Your task to perform on an android device: add a contact in the contacts app Image 0: 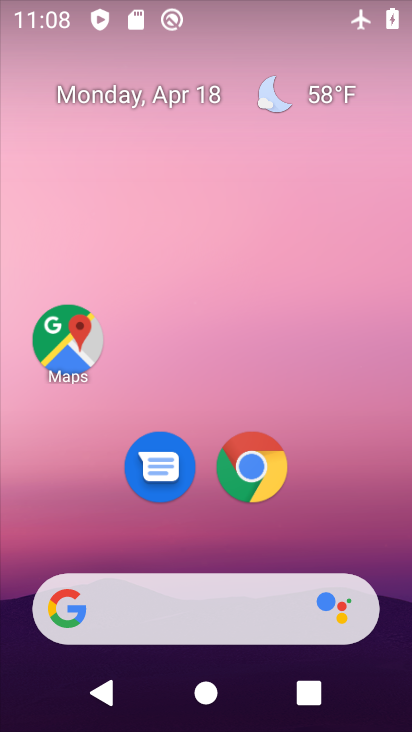
Step 0: drag from (206, 530) to (191, 166)
Your task to perform on an android device: add a contact in the contacts app Image 1: 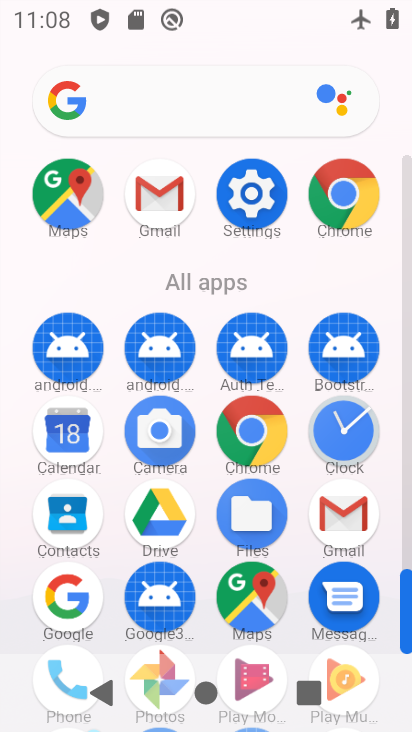
Step 1: click (69, 512)
Your task to perform on an android device: add a contact in the contacts app Image 2: 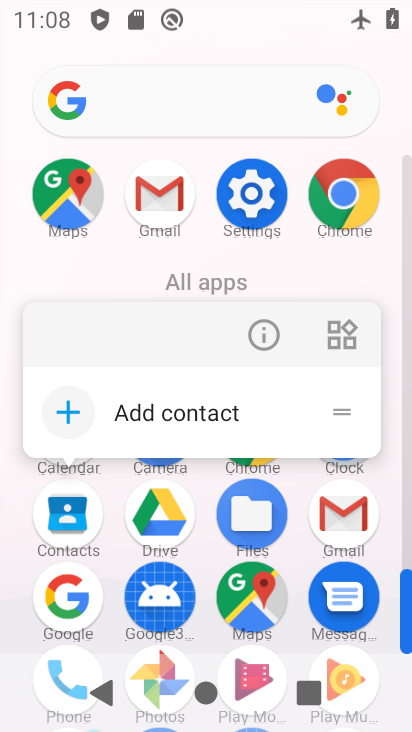
Step 2: click (75, 520)
Your task to perform on an android device: add a contact in the contacts app Image 3: 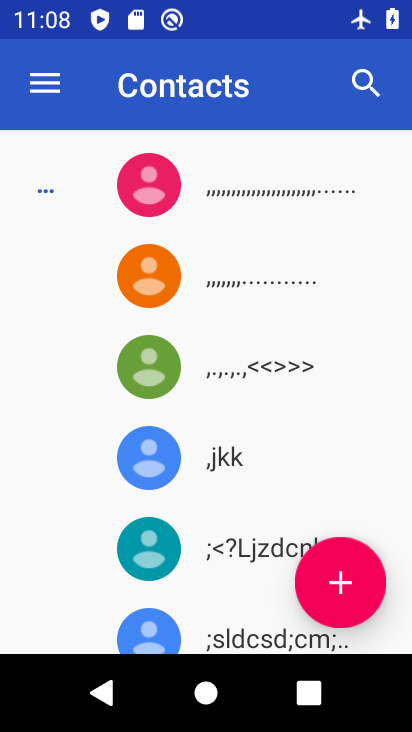
Step 3: click (341, 588)
Your task to perform on an android device: add a contact in the contacts app Image 4: 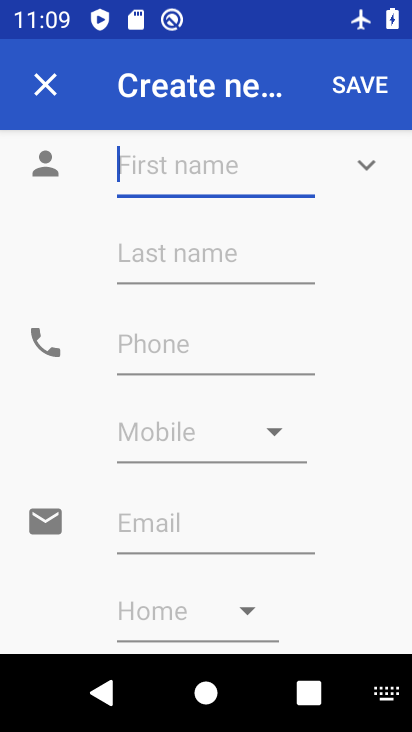
Step 4: type "ghghg"
Your task to perform on an android device: add a contact in the contacts app Image 5: 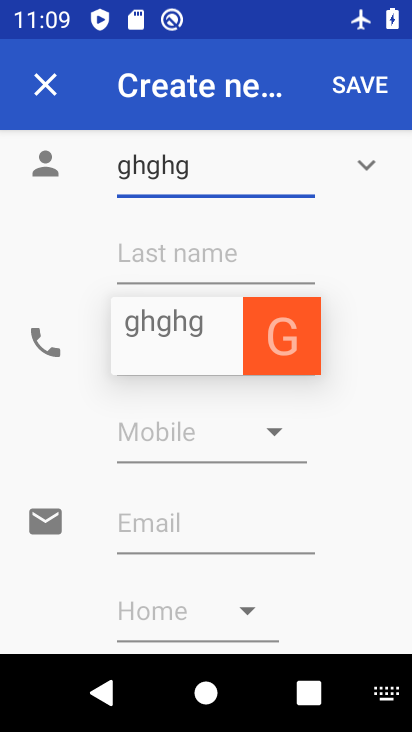
Step 5: click (173, 257)
Your task to perform on an android device: add a contact in the contacts app Image 6: 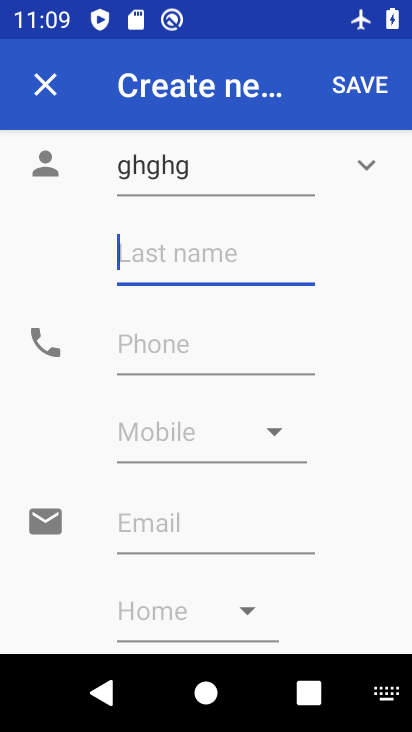
Step 6: type "ghghgh"
Your task to perform on an android device: add a contact in the contacts app Image 7: 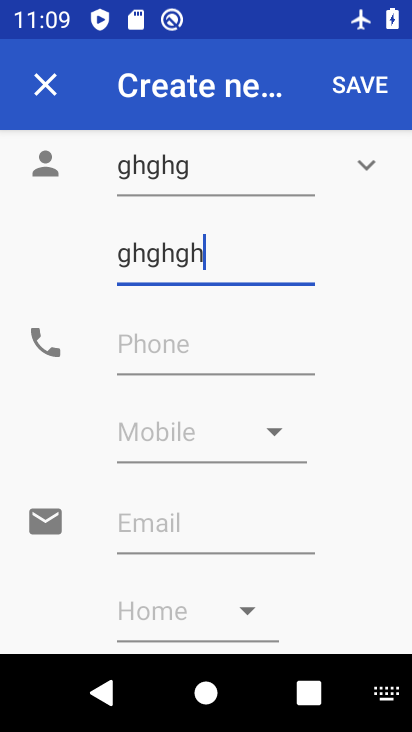
Step 7: type ""
Your task to perform on an android device: add a contact in the contacts app Image 8: 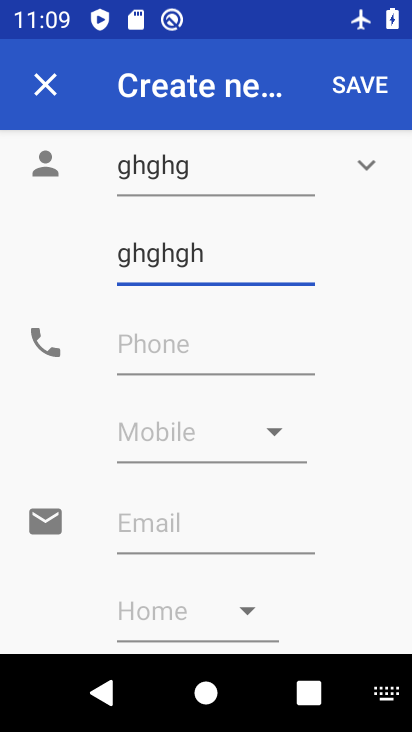
Step 8: click (207, 351)
Your task to perform on an android device: add a contact in the contacts app Image 9: 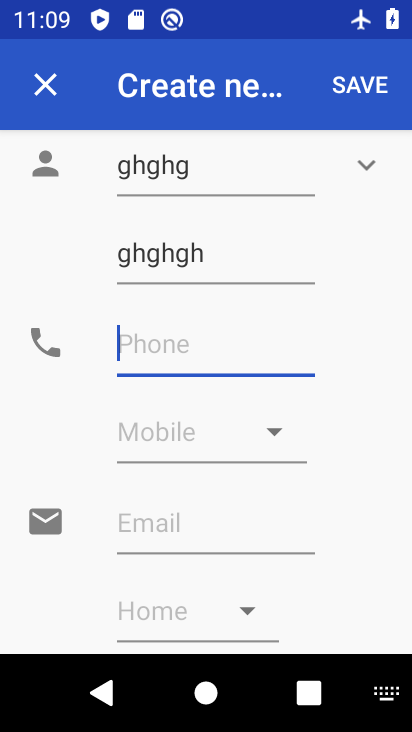
Step 9: type "7657656776"
Your task to perform on an android device: add a contact in the contacts app Image 10: 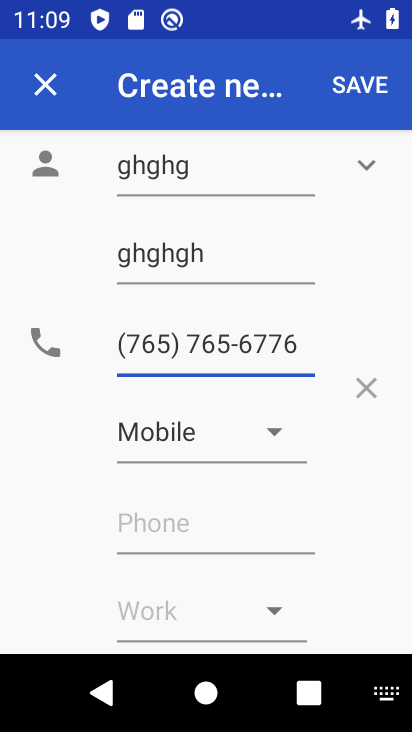
Step 10: click (359, 89)
Your task to perform on an android device: add a contact in the contacts app Image 11: 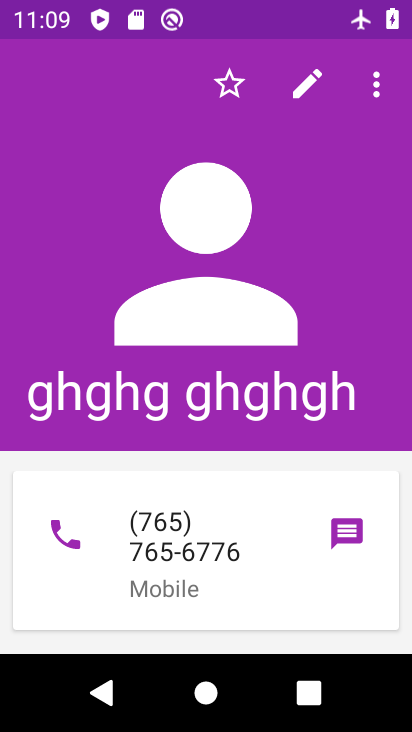
Step 11: task complete